Your task to perform on an android device: What's the weather going to be this weekend? Image 0: 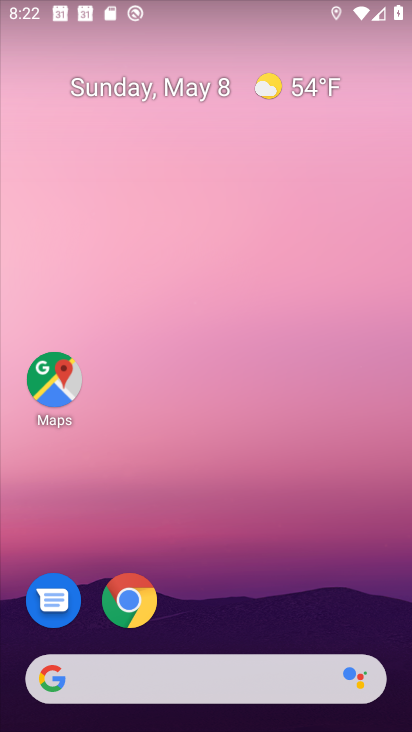
Step 0: drag from (262, 601) to (218, 159)
Your task to perform on an android device: What's the weather going to be this weekend? Image 1: 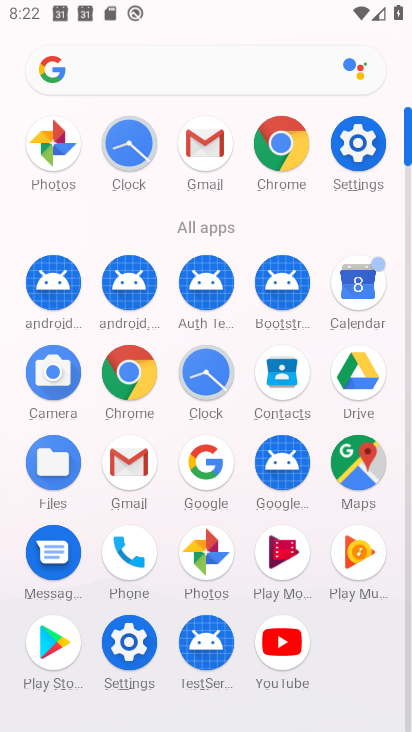
Step 1: click (203, 473)
Your task to perform on an android device: What's the weather going to be this weekend? Image 2: 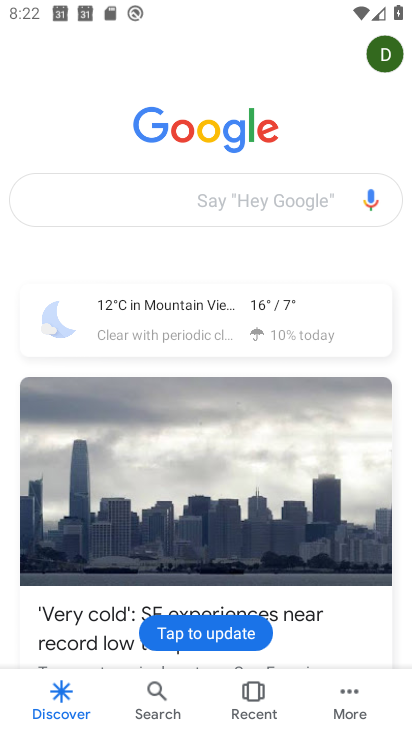
Step 2: click (168, 189)
Your task to perform on an android device: What's the weather going to be this weekend? Image 3: 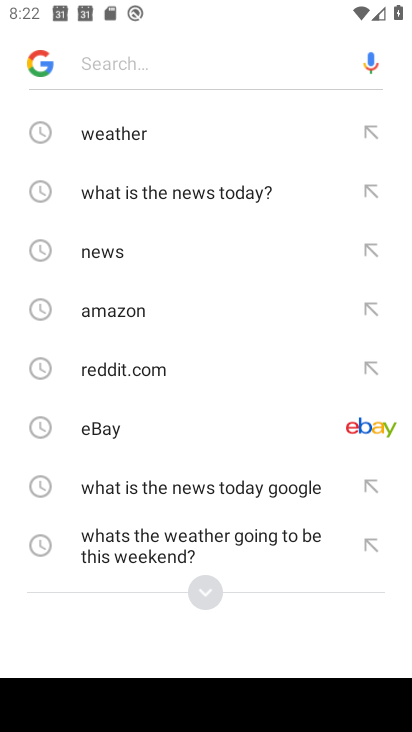
Step 3: click (145, 134)
Your task to perform on an android device: What's the weather going to be this weekend? Image 4: 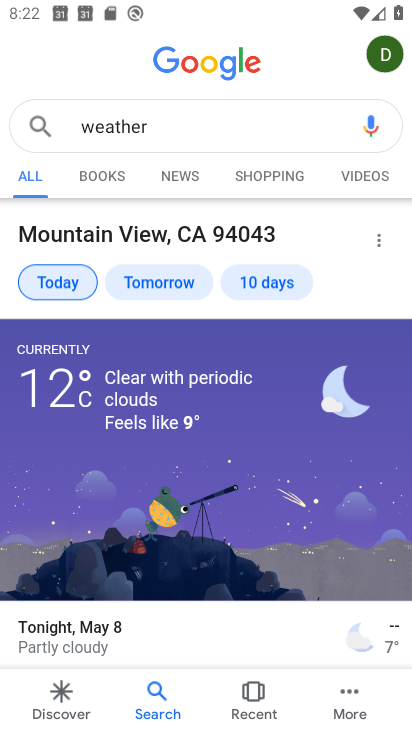
Step 4: task complete